Your task to perform on an android device: Search for the best selling coffee table on Crate & Barrel Image 0: 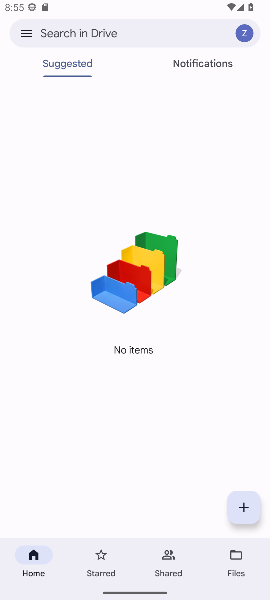
Step 0: press home button
Your task to perform on an android device: Search for the best selling coffee table on Crate & Barrel Image 1: 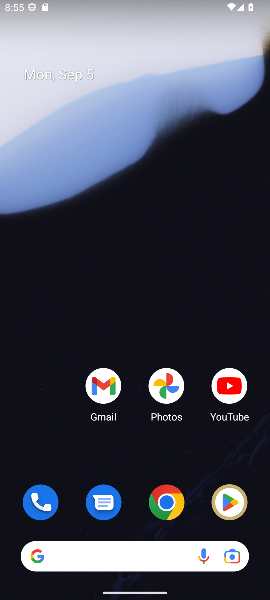
Step 1: click (173, 102)
Your task to perform on an android device: Search for the best selling coffee table on Crate & Barrel Image 2: 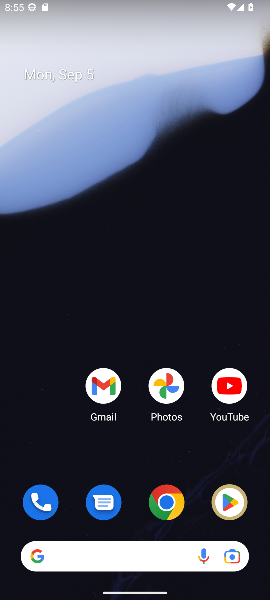
Step 2: drag from (35, 306) to (6, 113)
Your task to perform on an android device: Search for the best selling coffee table on Crate & Barrel Image 3: 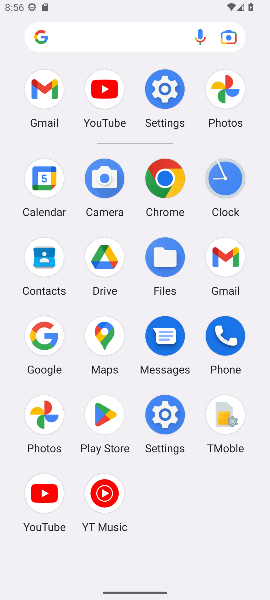
Step 3: click (45, 335)
Your task to perform on an android device: Search for the best selling coffee table on Crate & Barrel Image 4: 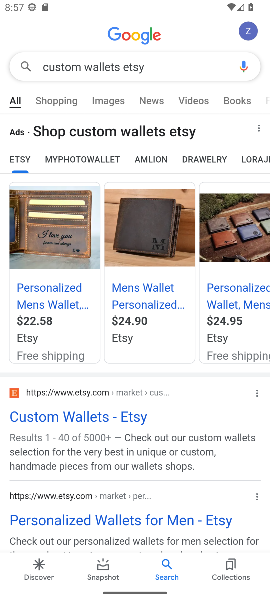
Step 4: press back button
Your task to perform on an android device: Search for the best selling coffee table on Crate & Barrel Image 5: 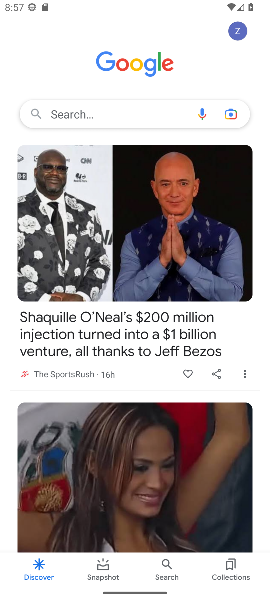
Step 5: click (62, 113)
Your task to perform on an android device: Search for the best selling coffee table on Crate & Barrel Image 6: 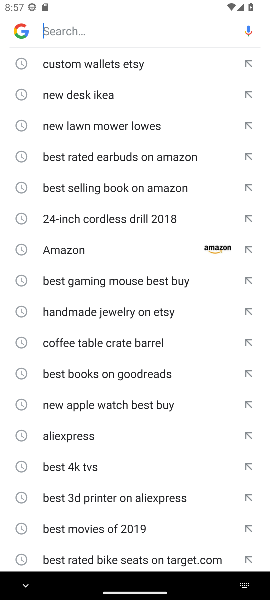
Step 6: type "best selling coffee table on Crate & Barrel"
Your task to perform on an android device: Search for the best selling coffee table on Crate & Barrel Image 7: 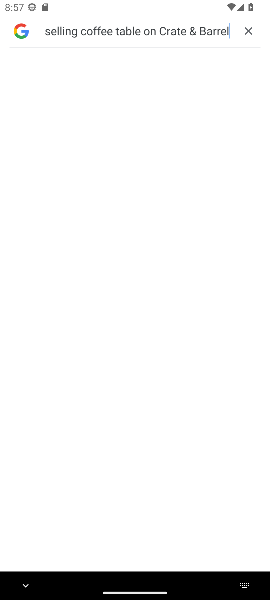
Step 7: task complete